Your task to perform on an android device: Go to Maps Image 0: 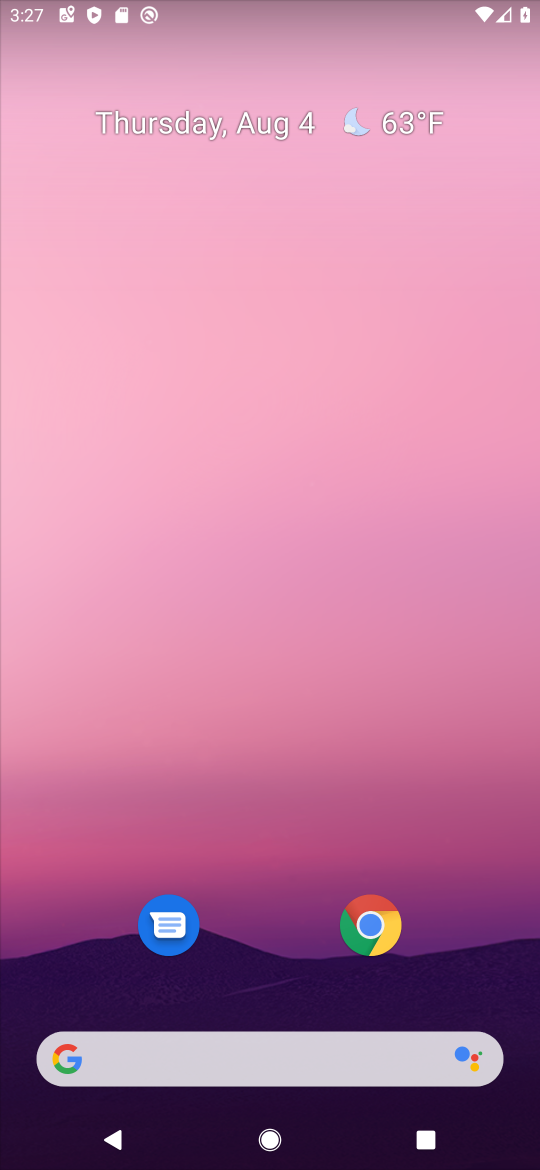
Step 0: drag from (340, 754) to (337, 10)
Your task to perform on an android device: Go to Maps Image 1: 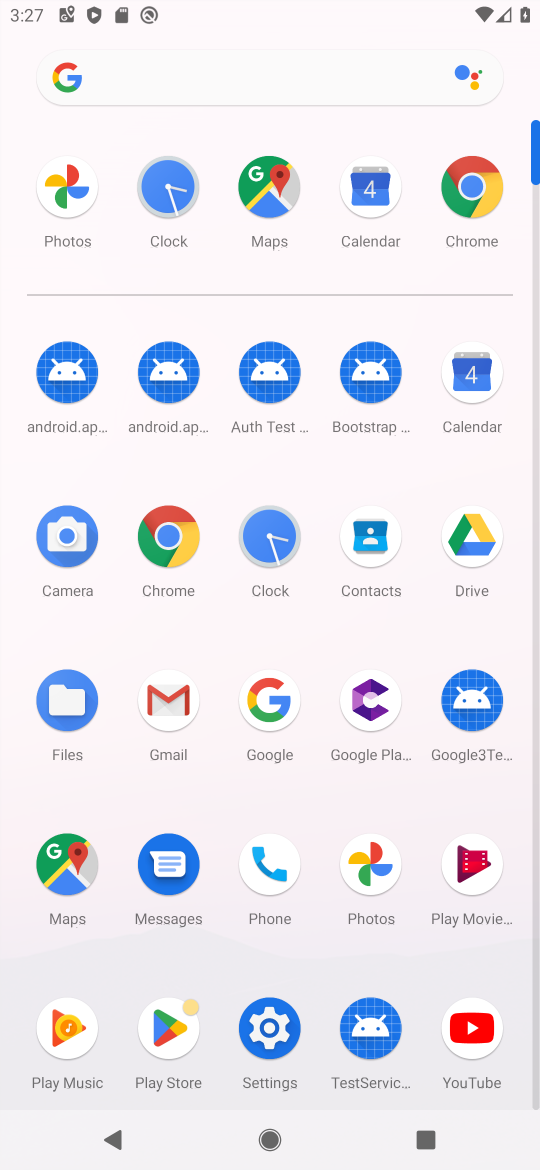
Step 1: click (255, 188)
Your task to perform on an android device: Go to Maps Image 2: 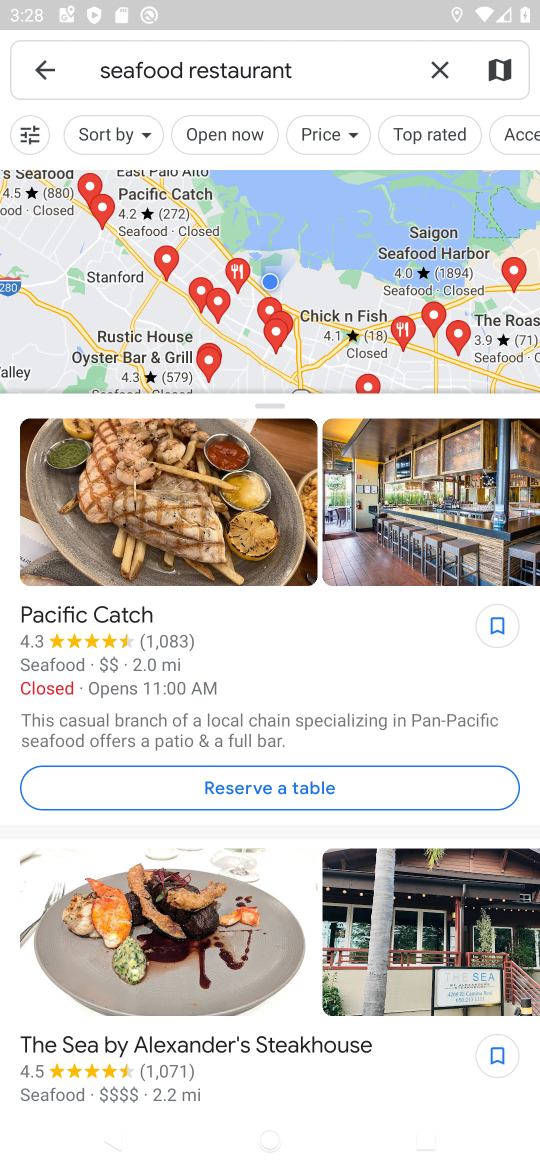
Step 2: task complete